Your task to perform on an android device: Open settings on Google Maps Image 0: 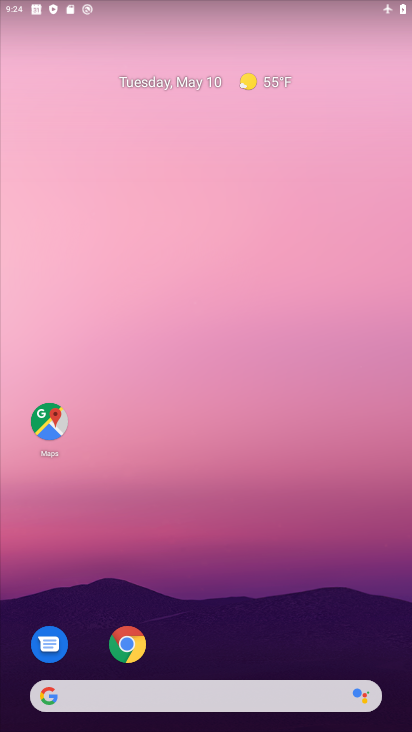
Step 0: drag from (251, 558) to (237, 229)
Your task to perform on an android device: Open settings on Google Maps Image 1: 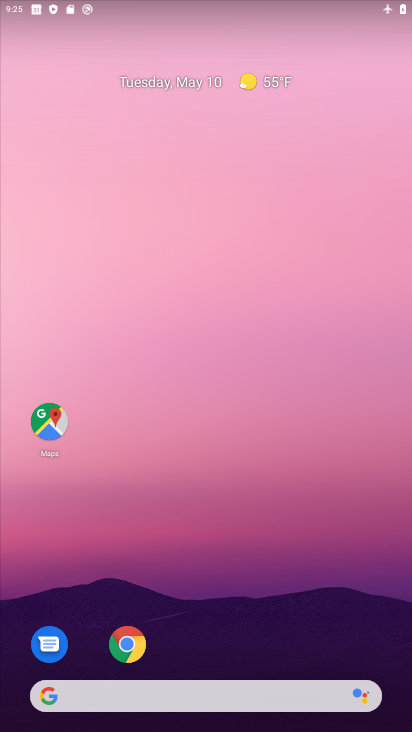
Step 1: drag from (194, 675) to (209, 252)
Your task to perform on an android device: Open settings on Google Maps Image 2: 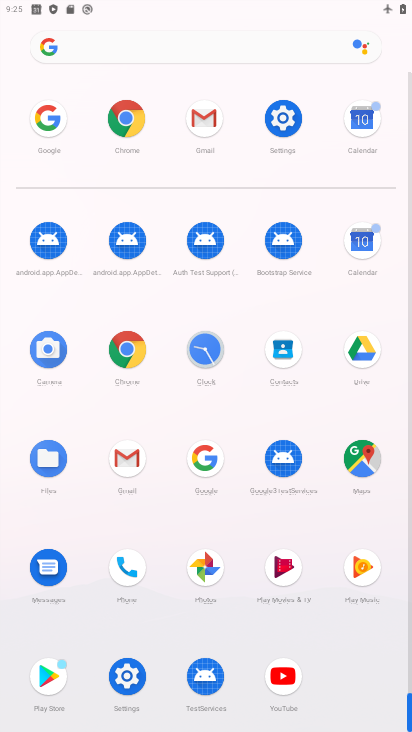
Step 2: click (366, 480)
Your task to perform on an android device: Open settings on Google Maps Image 3: 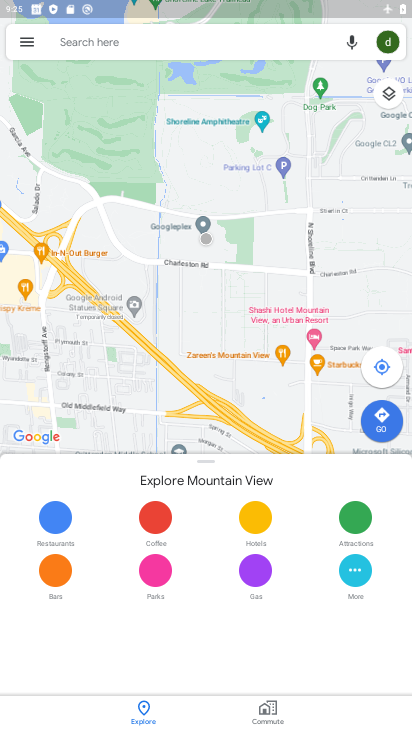
Step 3: click (33, 39)
Your task to perform on an android device: Open settings on Google Maps Image 4: 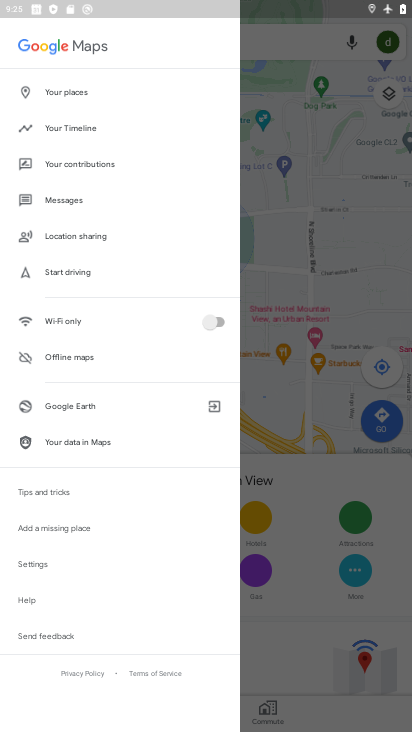
Step 4: click (69, 572)
Your task to perform on an android device: Open settings on Google Maps Image 5: 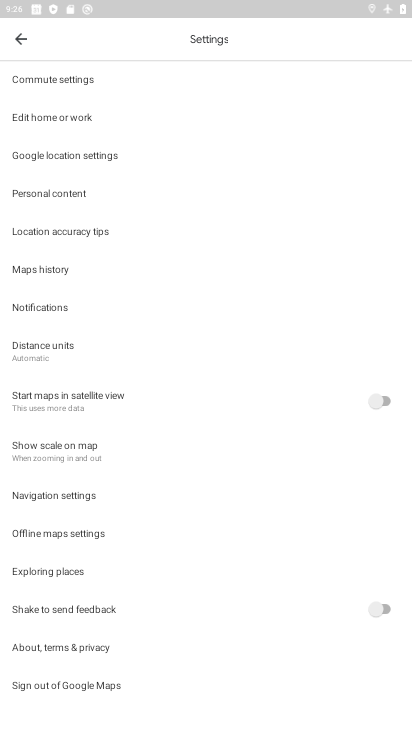
Step 5: task complete